Your task to perform on an android device: add a contact Image 0: 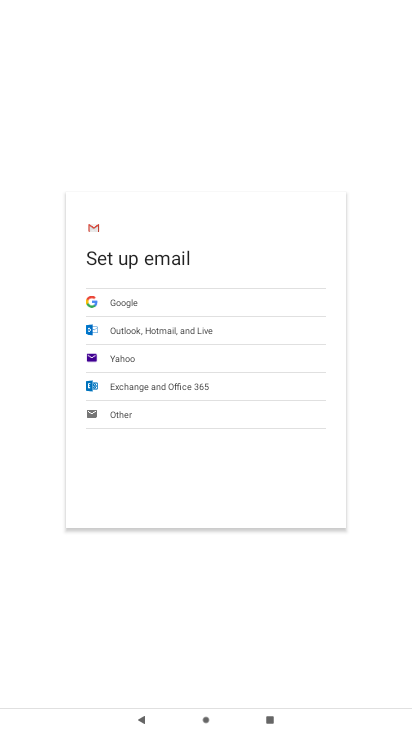
Step 0: press home button
Your task to perform on an android device: add a contact Image 1: 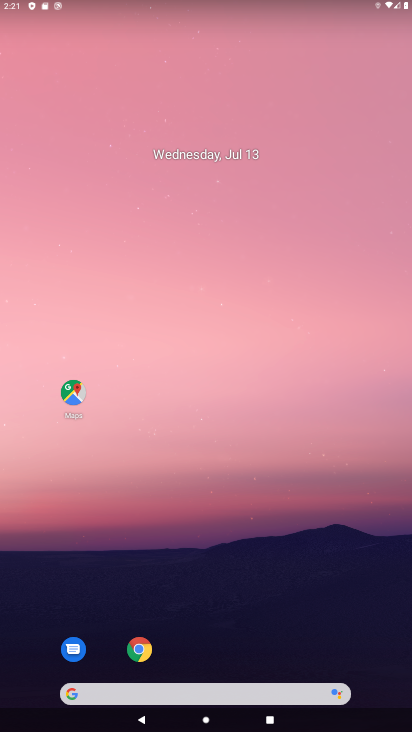
Step 1: drag from (199, 579) to (194, 102)
Your task to perform on an android device: add a contact Image 2: 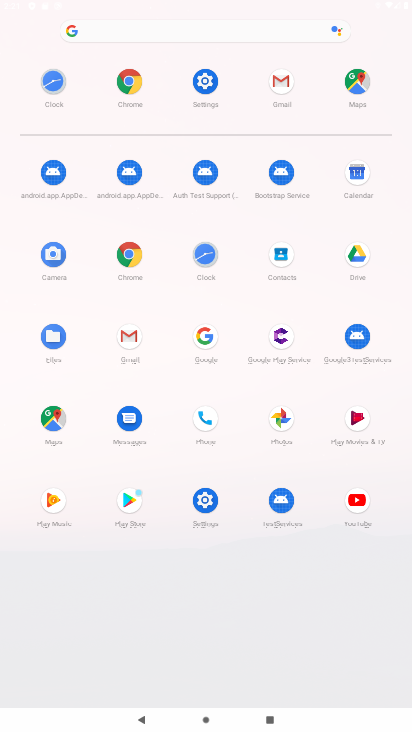
Step 2: click (284, 253)
Your task to perform on an android device: add a contact Image 3: 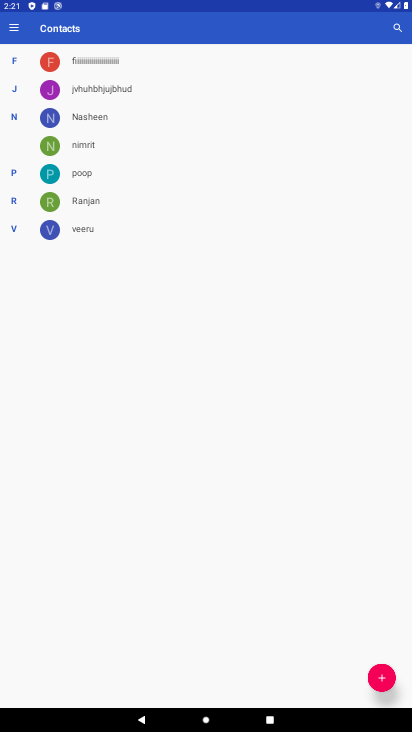
Step 3: click (378, 673)
Your task to perform on an android device: add a contact Image 4: 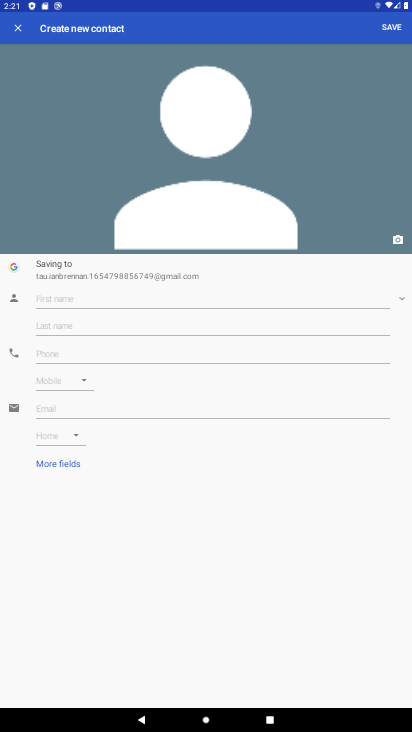
Step 4: click (70, 298)
Your task to perform on an android device: add a contact Image 5: 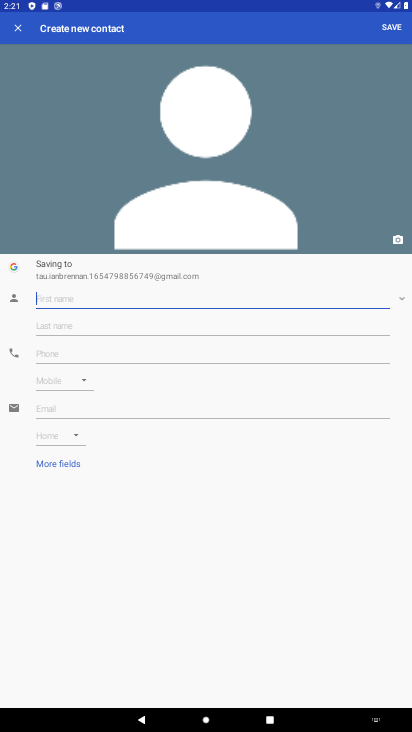
Step 5: type "dsds"
Your task to perform on an android device: add a contact Image 6: 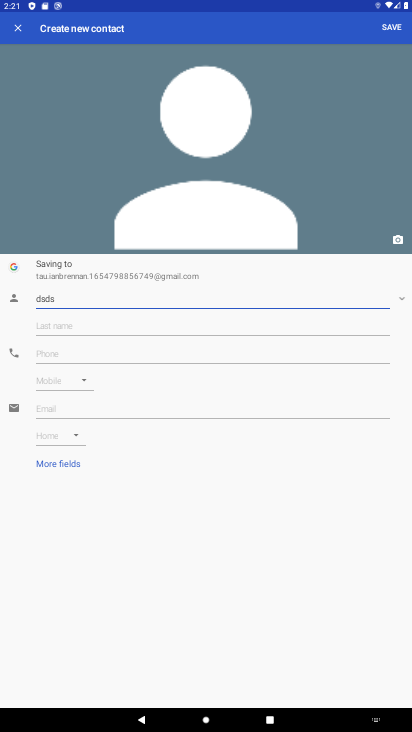
Step 6: click (89, 353)
Your task to perform on an android device: add a contact Image 7: 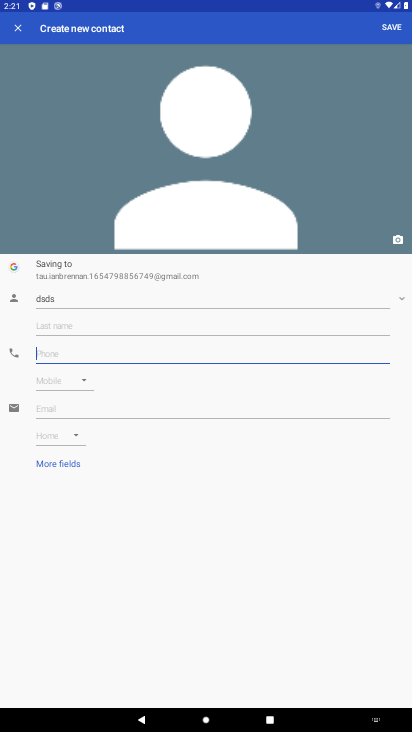
Step 7: type "2323"
Your task to perform on an android device: add a contact Image 8: 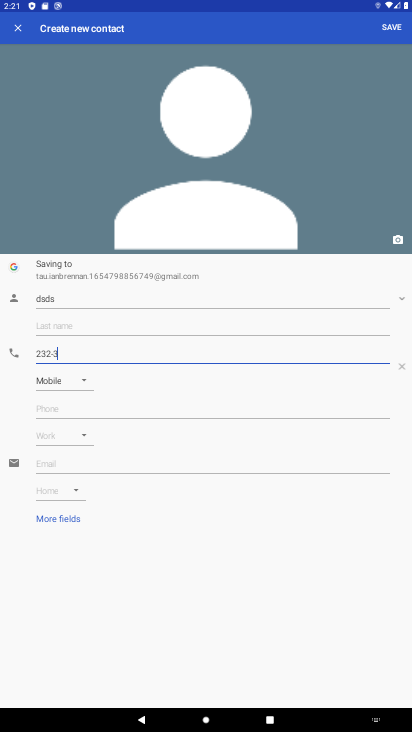
Step 8: click (385, 32)
Your task to perform on an android device: add a contact Image 9: 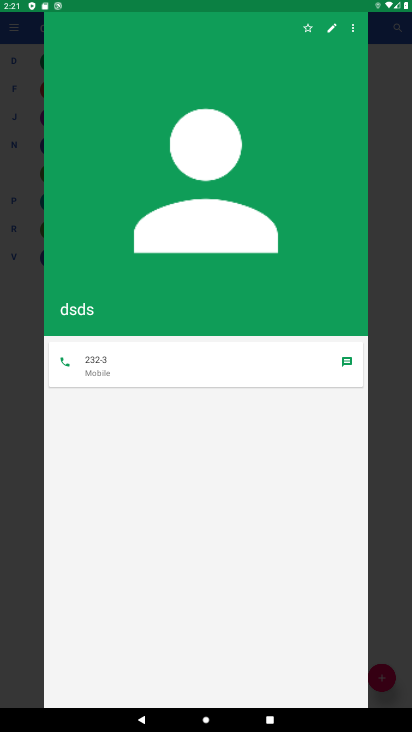
Step 9: task complete